Your task to perform on an android device: See recent photos Image 0: 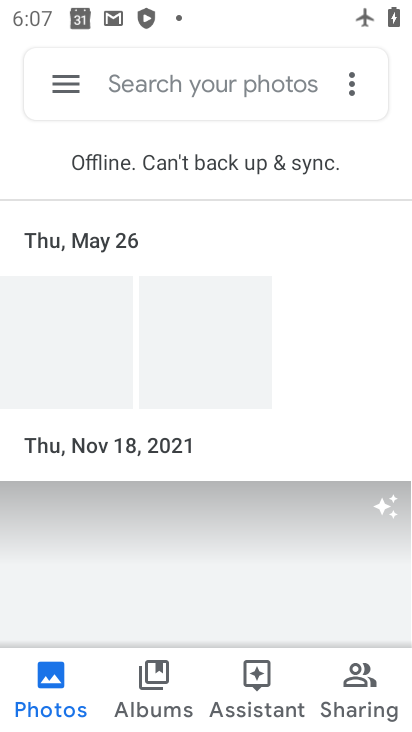
Step 0: press home button
Your task to perform on an android device: See recent photos Image 1: 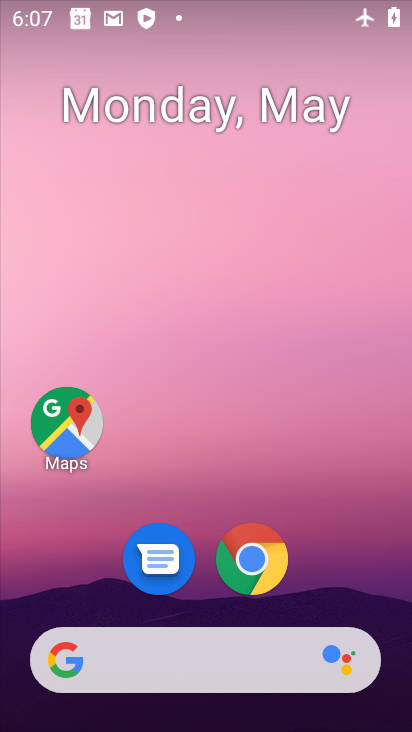
Step 1: drag from (318, 482) to (234, 78)
Your task to perform on an android device: See recent photos Image 2: 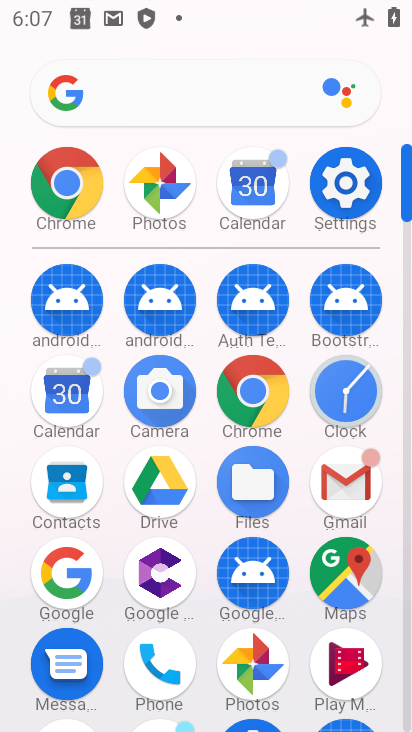
Step 2: click (157, 182)
Your task to perform on an android device: See recent photos Image 3: 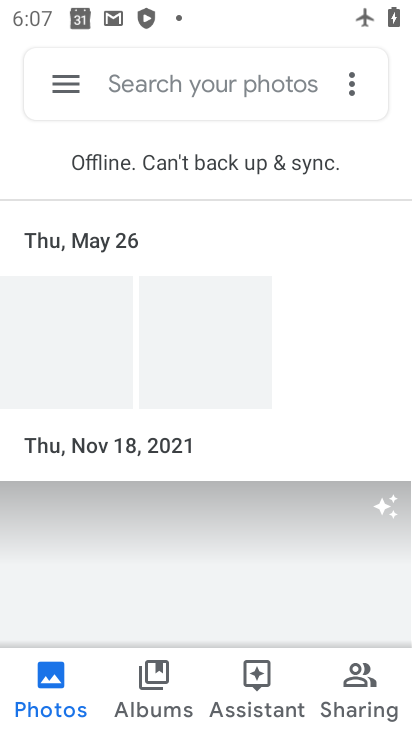
Step 3: task complete